Your task to perform on an android device: Open the stopwatch Image 0: 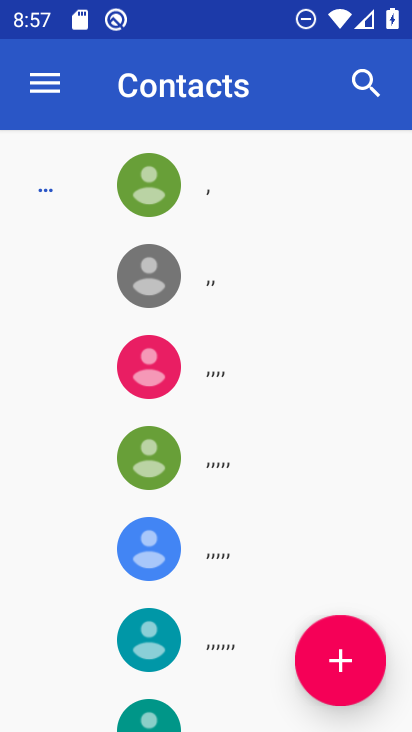
Step 0: press home button
Your task to perform on an android device: Open the stopwatch Image 1: 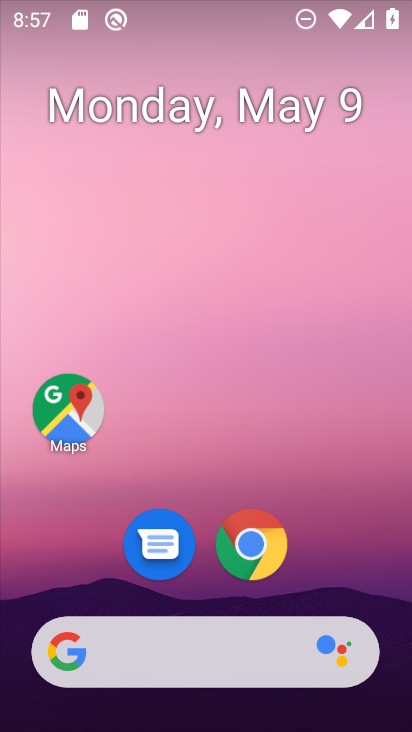
Step 1: drag from (319, 559) to (241, 28)
Your task to perform on an android device: Open the stopwatch Image 2: 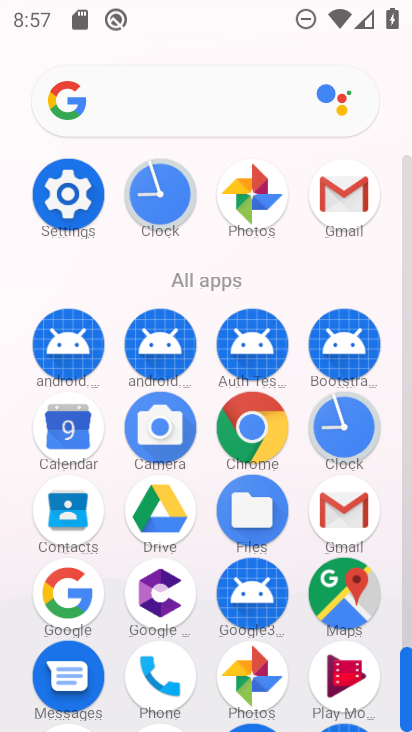
Step 2: click (337, 417)
Your task to perform on an android device: Open the stopwatch Image 3: 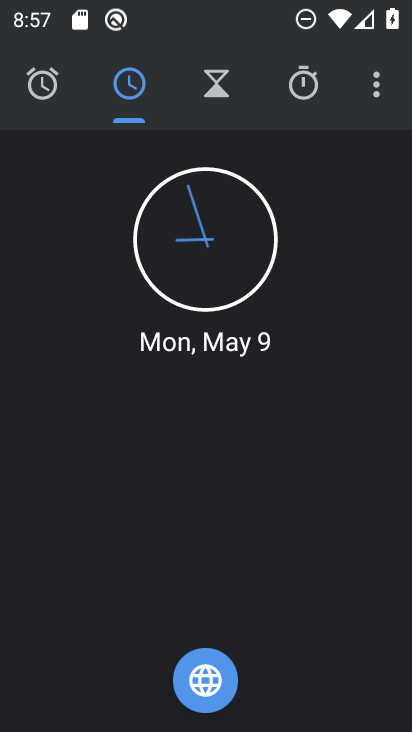
Step 3: click (300, 86)
Your task to perform on an android device: Open the stopwatch Image 4: 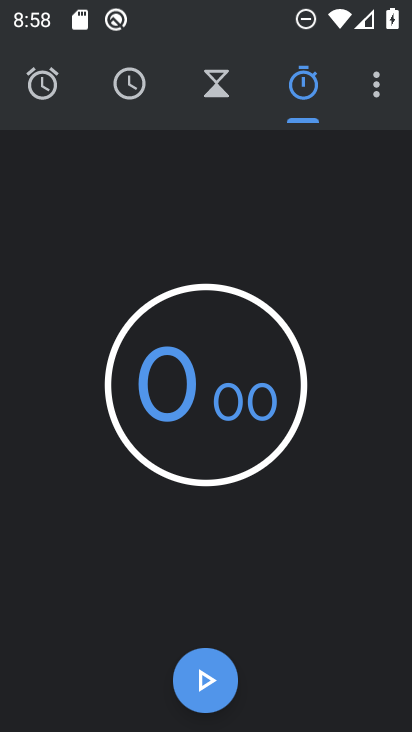
Step 4: task complete